Your task to perform on an android device: turn on showing notifications on the lock screen Image 0: 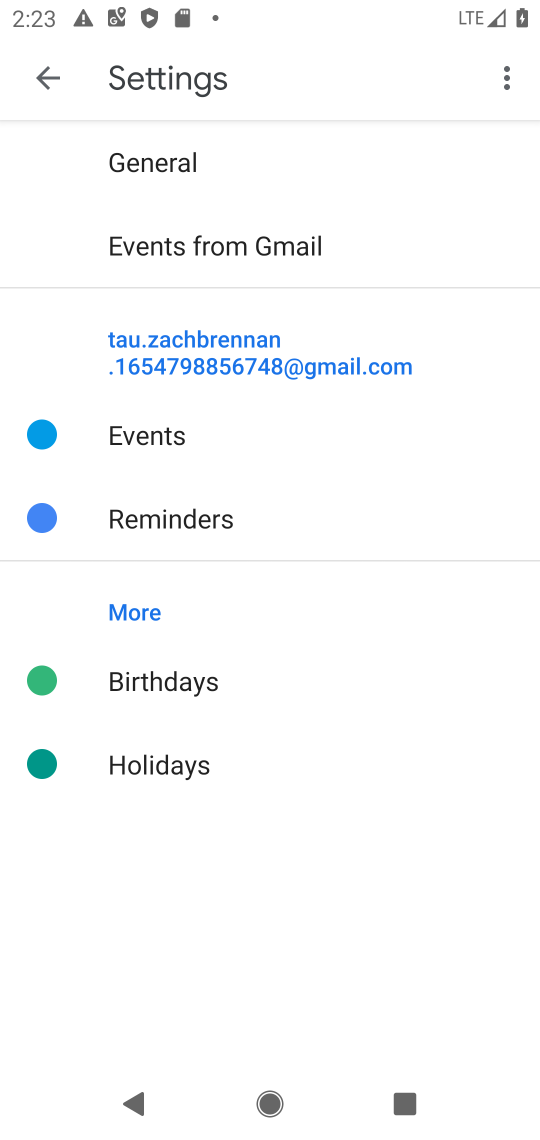
Step 0: press home button
Your task to perform on an android device: turn on showing notifications on the lock screen Image 1: 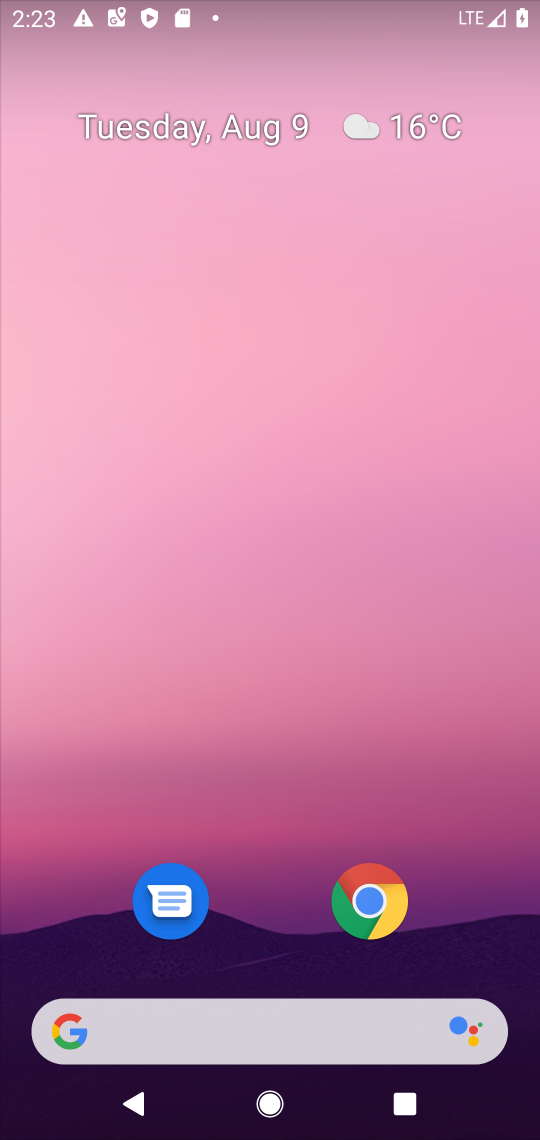
Step 1: drag from (487, 949) to (484, 85)
Your task to perform on an android device: turn on showing notifications on the lock screen Image 2: 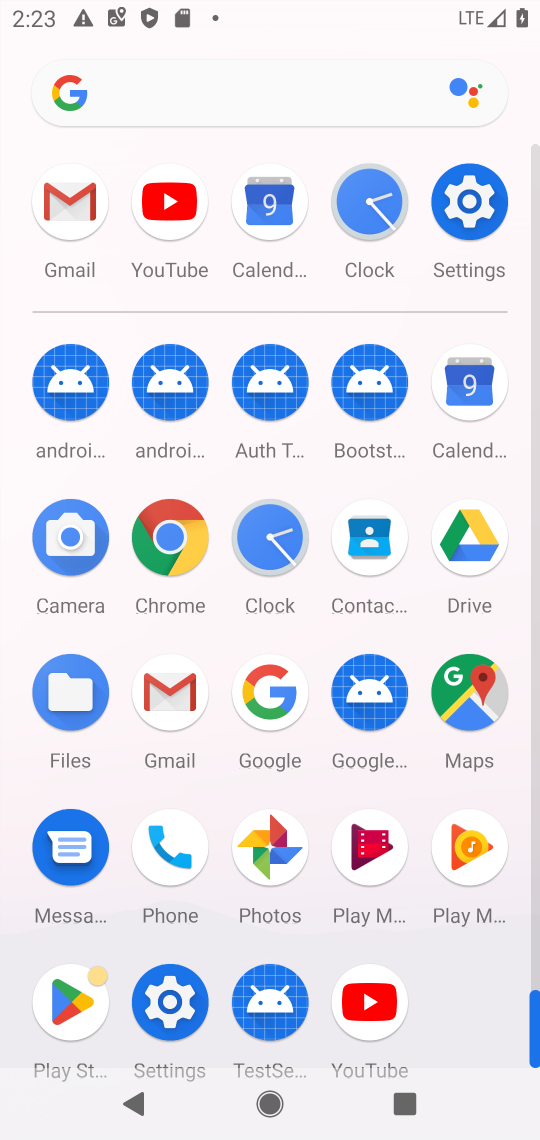
Step 2: click (166, 1002)
Your task to perform on an android device: turn on showing notifications on the lock screen Image 3: 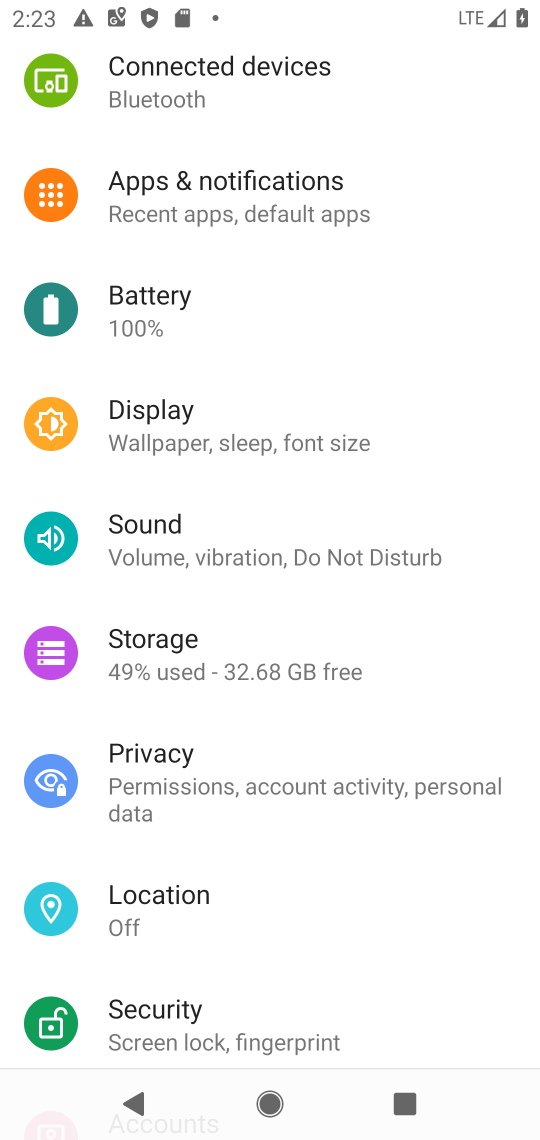
Step 3: click (218, 207)
Your task to perform on an android device: turn on showing notifications on the lock screen Image 4: 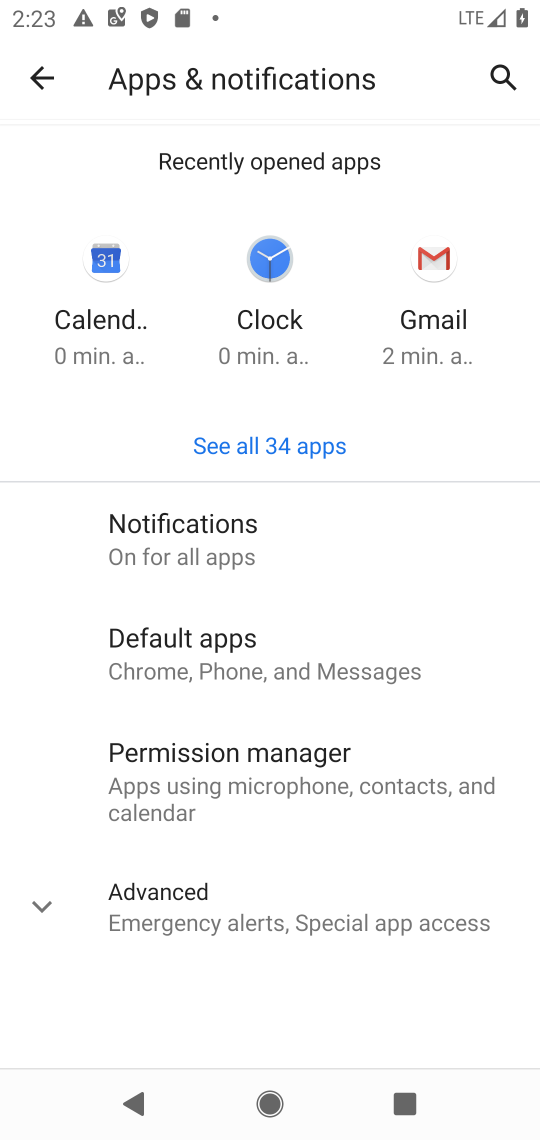
Step 4: click (198, 535)
Your task to perform on an android device: turn on showing notifications on the lock screen Image 5: 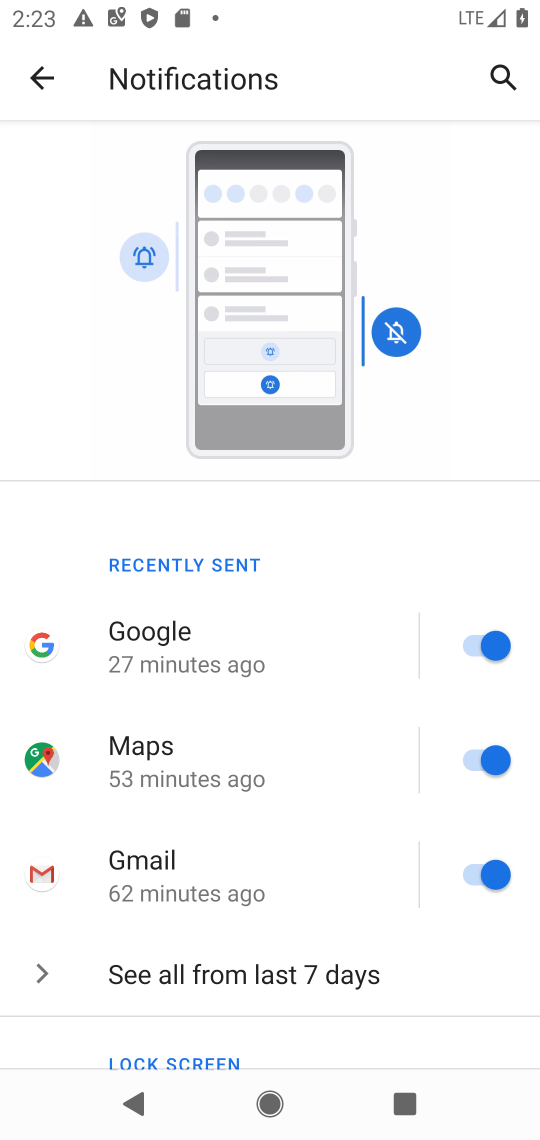
Step 5: drag from (395, 978) to (433, 299)
Your task to perform on an android device: turn on showing notifications on the lock screen Image 6: 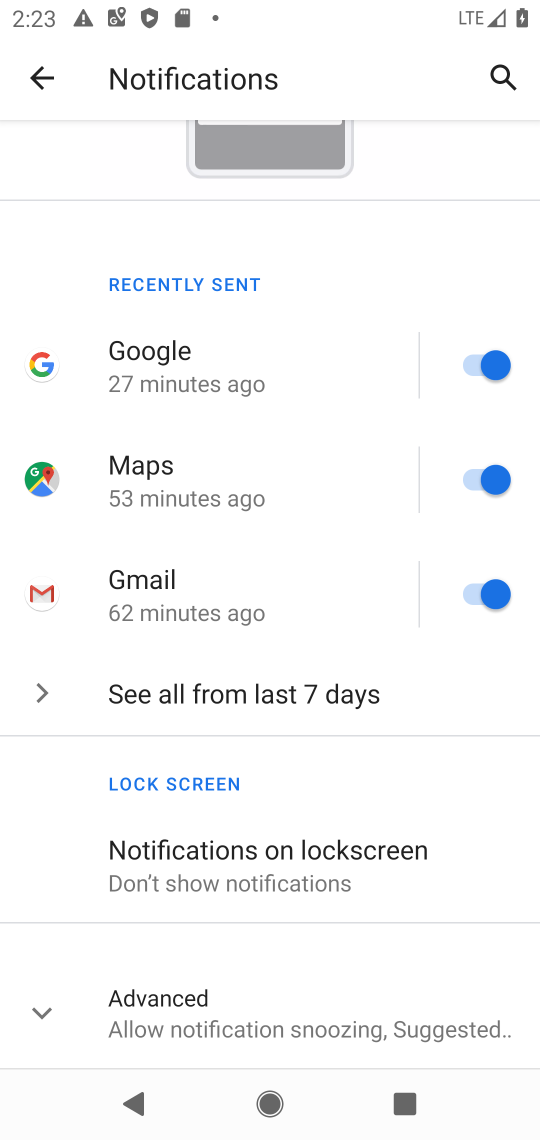
Step 6: click (210, 865)
Your task to perform on an android device: turn on showing notifications on the lock screen Image 7: 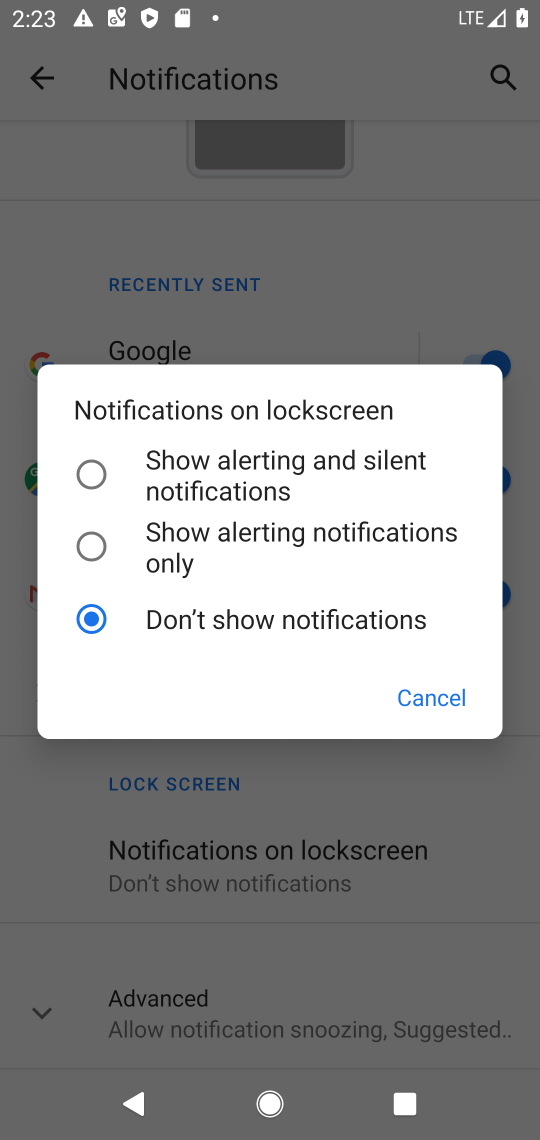
Step 7: click (93, 478)
Your task to perform on an android device: turn on showing notifications on the lock screen Image 8: 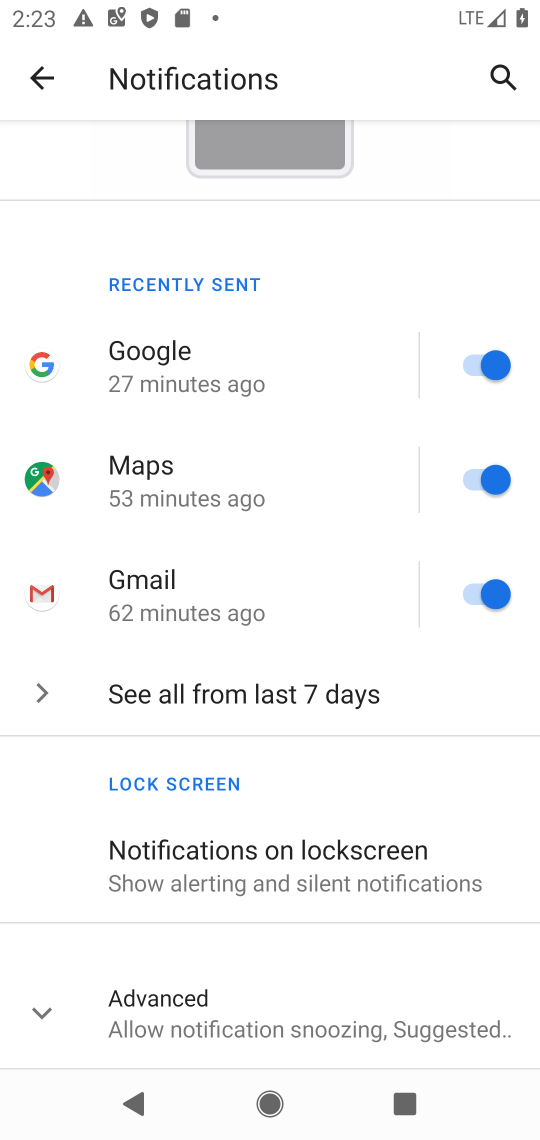
Step 8: task complete